Your task to perform on an android device: Open Android settings Image 0: 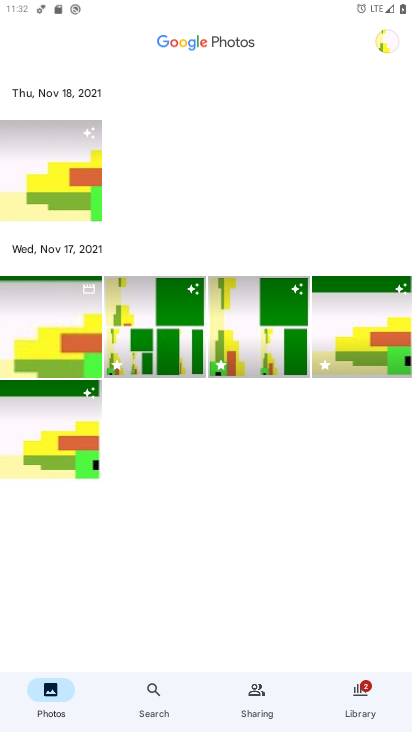
Step 0: press home button
Your task to perform on an android device: Open Android settings Image 1: 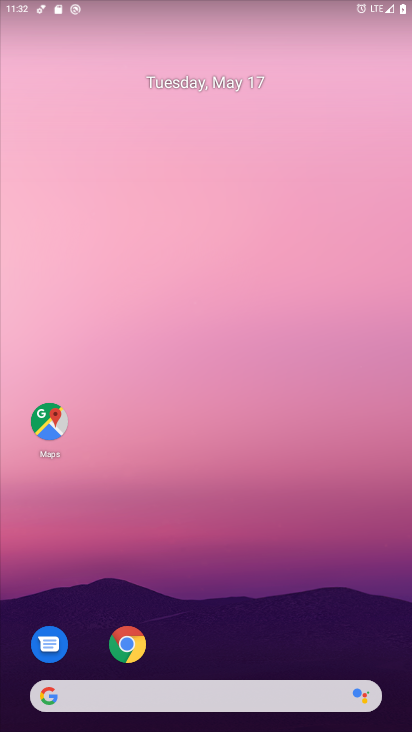
Step 1: drag from (227, 651) to (237, 73)
Your task to perform on an android device: Open Android settings Image 2: 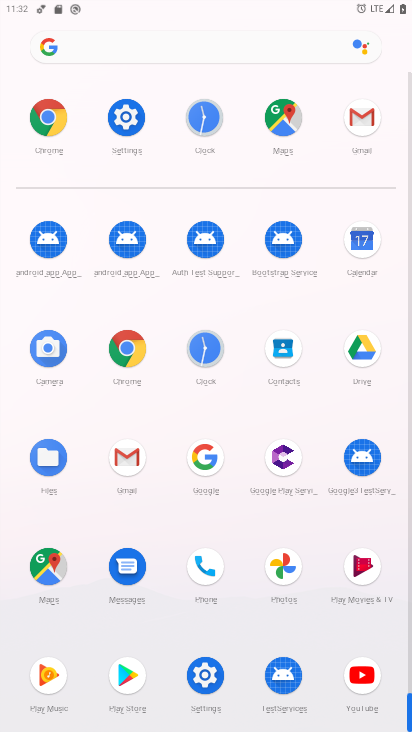
Step 2: click (128, 106)
Your task to perform on an android device: Open Android settings Image 3: 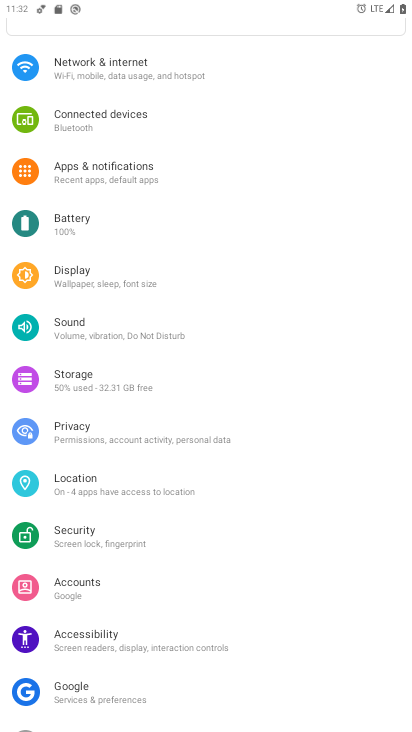
Step 3: drag from (147, 127) to (179, 675)
Your task to perform on an android device: Open Android settings Image 4: 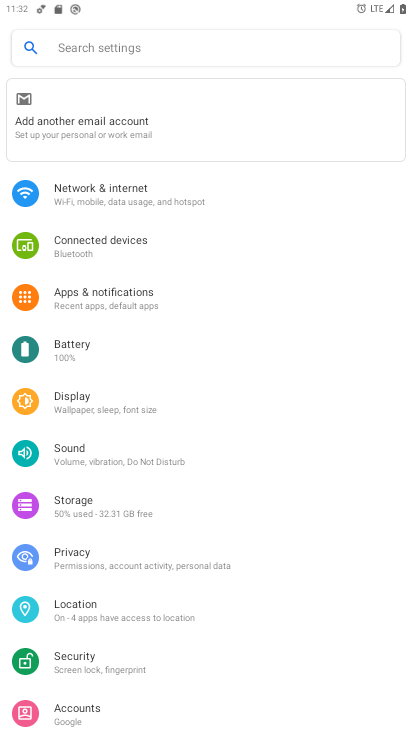
Step 4: drag from (180, 663) to (193, 113)
Your task to perform on an android device: Open Android settings Image 5: 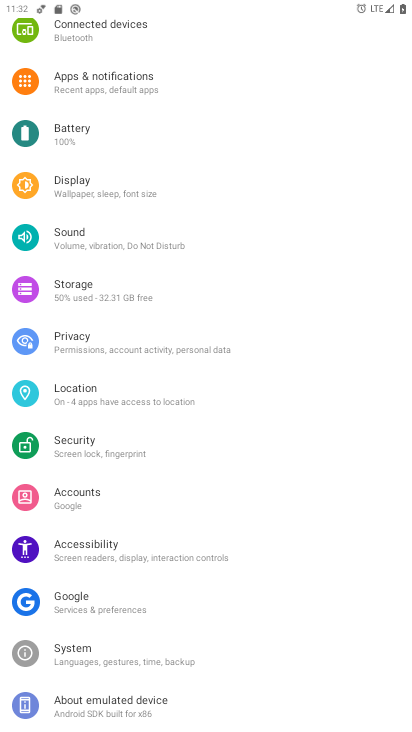
Step 5: click (168, 709)
Your task to perform on an android device: Open Android settings Image 6: 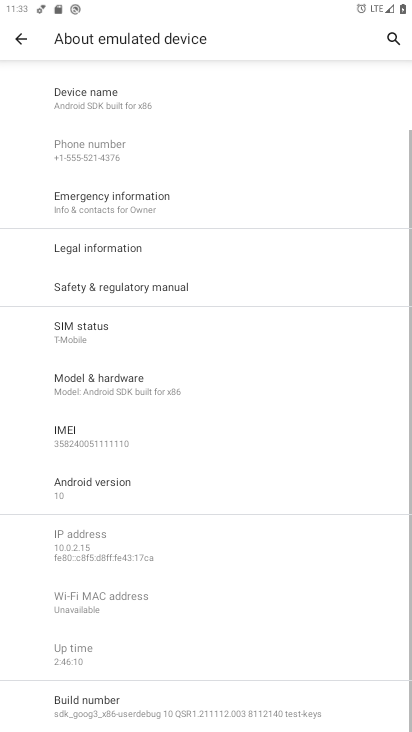
Step 6: task complete